Your task to perform on an android device: change keyboard looks Image 0: 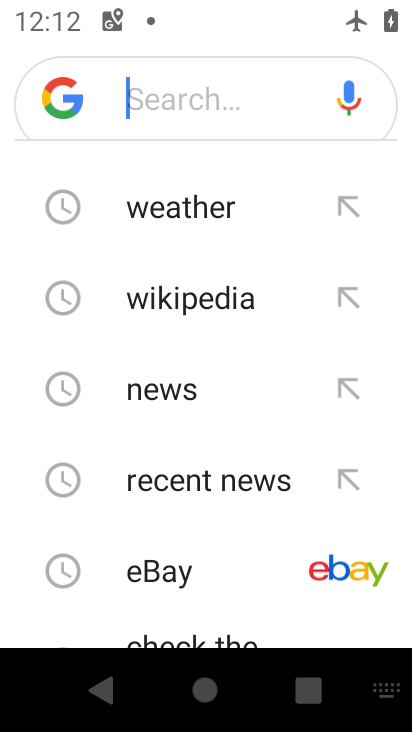
Step 0: press home button
Your task to perform on an android device: change keyboard looks Image 1: 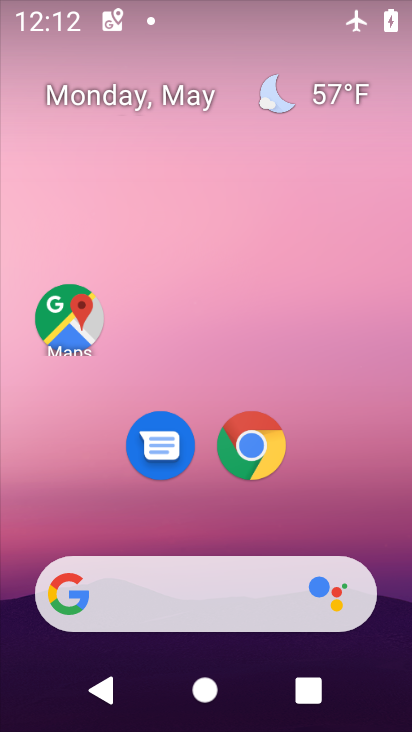
Step 1: drag from (305, 430) to (276, 98)
Your task to perform on an android device: change keyboard looks Image 2: 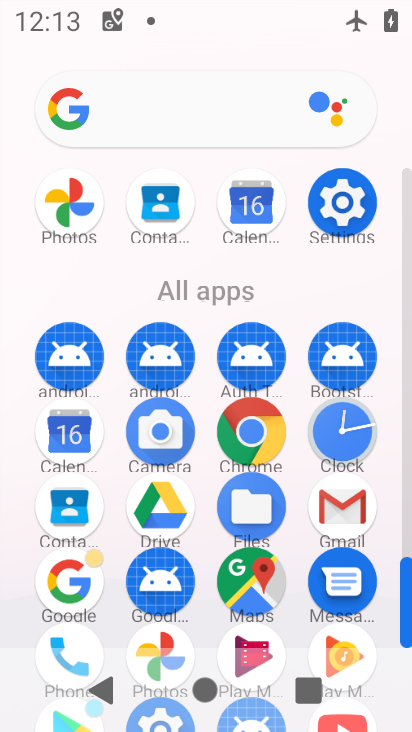
Step 2: click (328, 208)
Your task to perform on an android device: change keyboard looks Image 3: 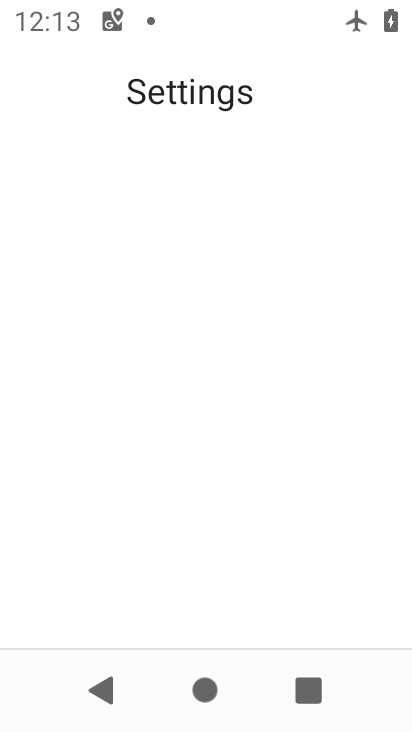
Step 3: click (328, 208)
Your task to perform on an android device: change keyboard looks Image 4: 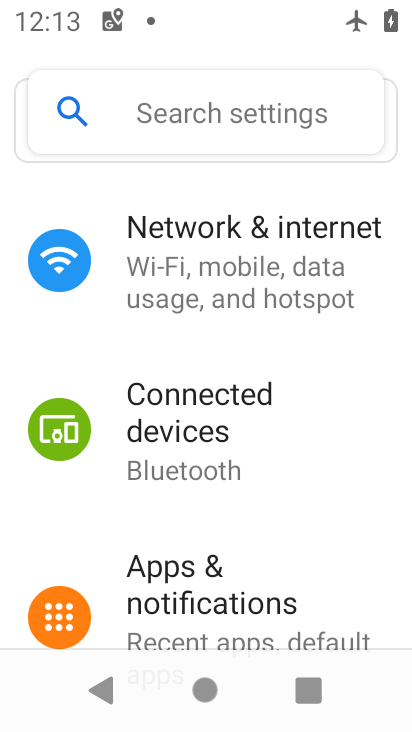
Step 4: drag from (241, 335) to (211, 220)
Your task to perform on an android device: change keyboard looks Image 5: 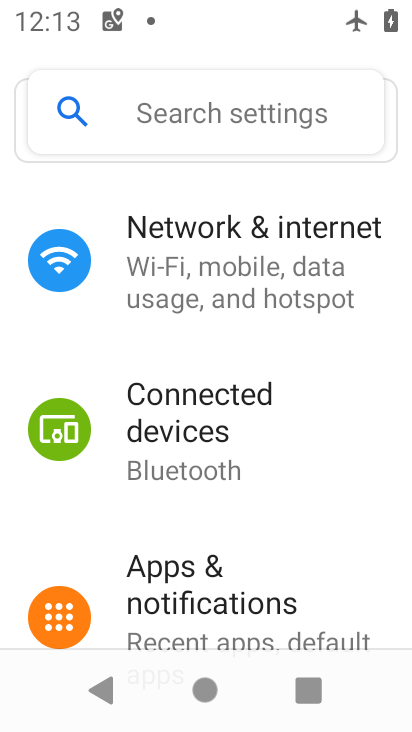
Step 5: drag from (266, 496) to (218, 175)
Your task to perform on an android device: change keyboard looks Image 6: 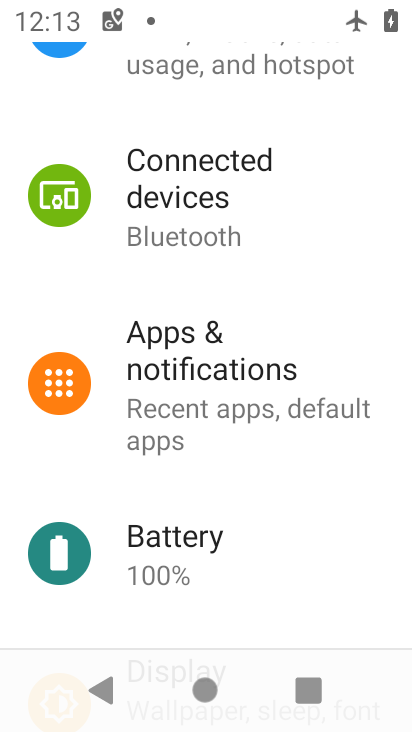
Step 6: drag from (278, 556) to (245, 62)
Your task to perform on an android device: change keyboard looks Image 7: 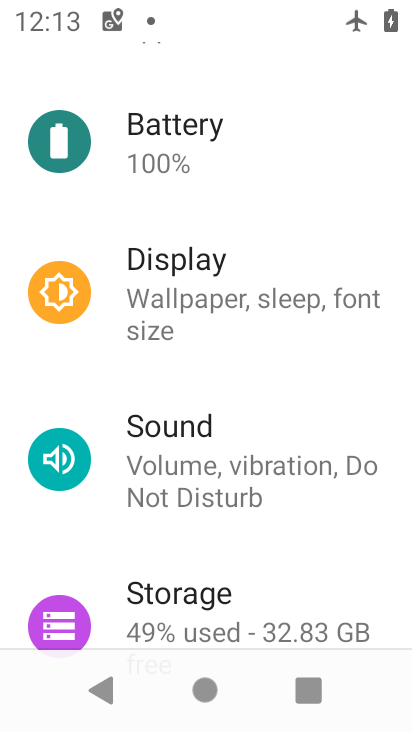
Step 7: drag from (278, 584) to (197, 3)
Your task to perform on an android device: change keyboard looks Image 8: 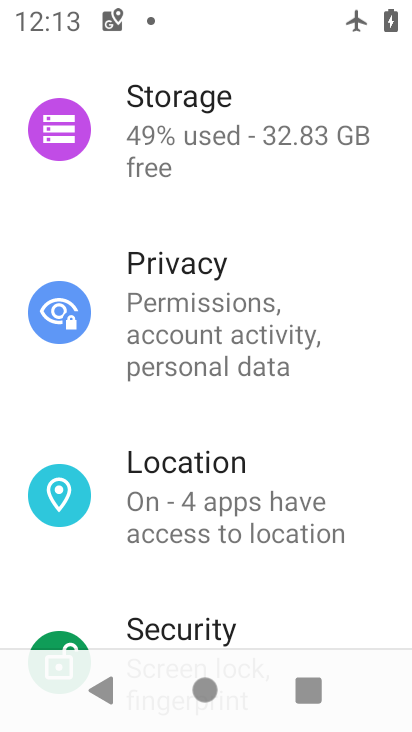
Step 8: click (251, 25)
Your task to perform on an android device: change keyboard looks Image 9: 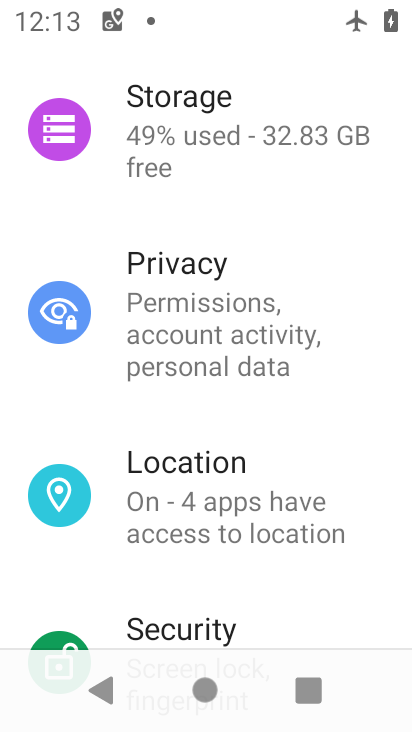
Step 9: drag from (302, 575) to (294, 158)
Your task to perform on an android device: change keyboard looks Image 10: 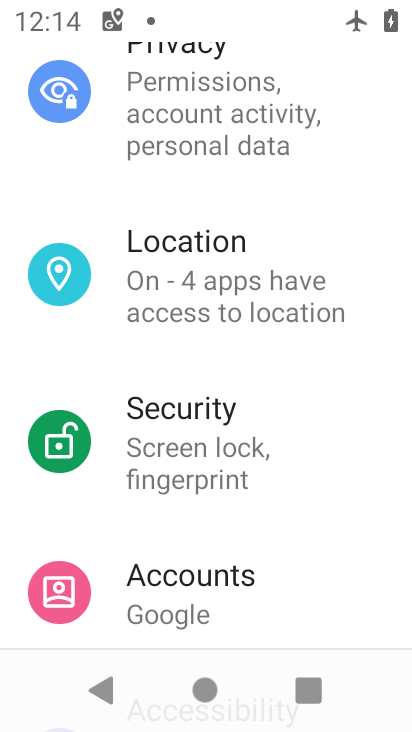
Step 10: drag from (288, 523) to (260, 115)
Your task to perform on an android device: change keyboard looks Image 11: 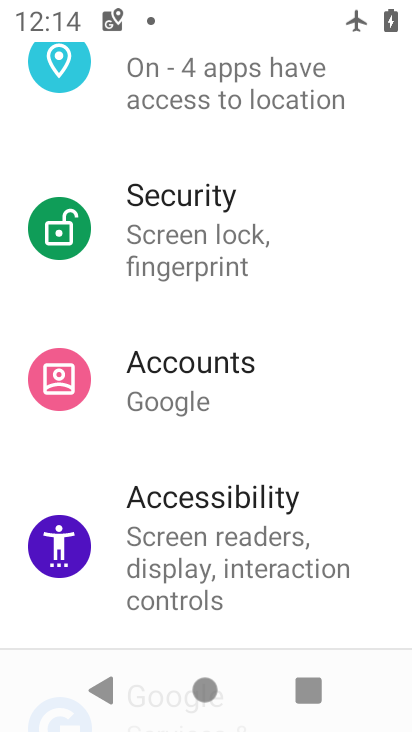
Step 11: drag from (292, 440) to (280, 172)
Your task to perform on an android device: change keyboard looks Image 12: 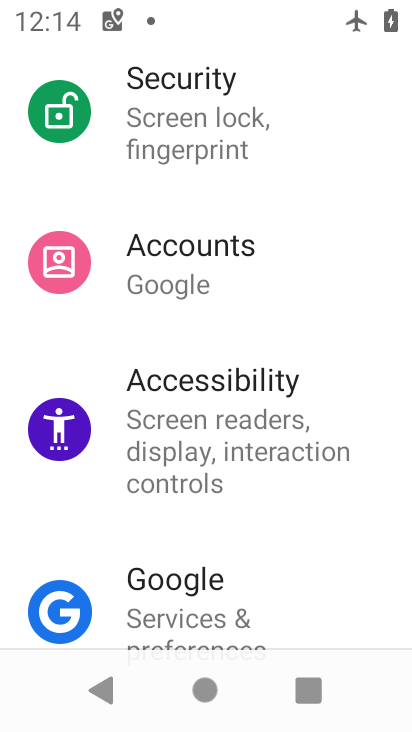
Step 12: drag from (299, 540) to (316, 151)
Your task to perform on an android device: change keyboard looks Image 13: 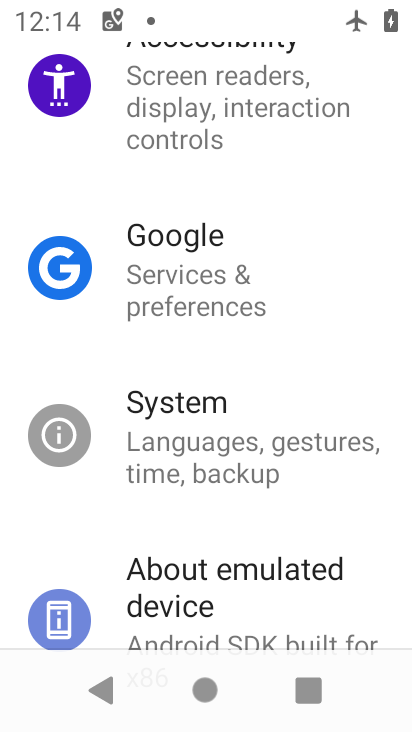
Step 13: click (255, 450)
Your task to perform on an android device: change keyboard looks Image 14: 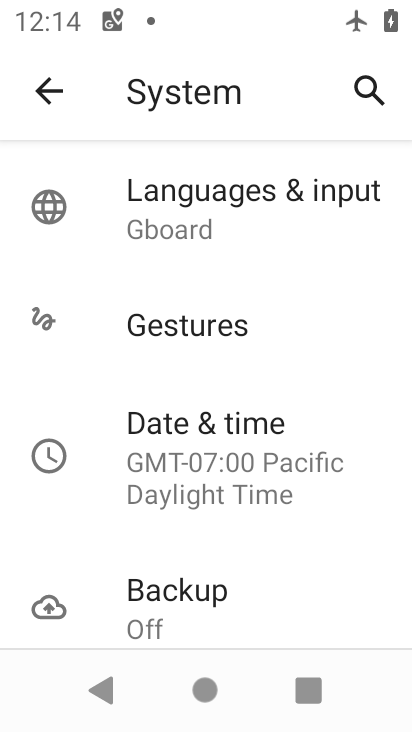
Step 14: drag from (294, 559) to (299, 194)
Your task to perform on an android device: change keyboard looks Image 15: 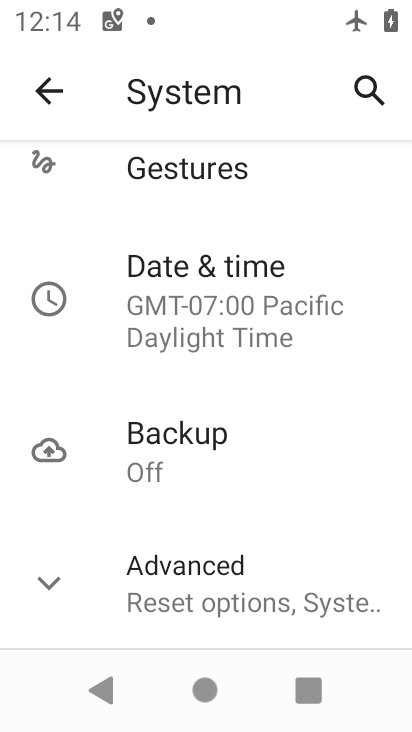
Step 15: drag from (299, 186) to (260, 508)
Your task to perform on an android device: change keyboard looks Image 16: 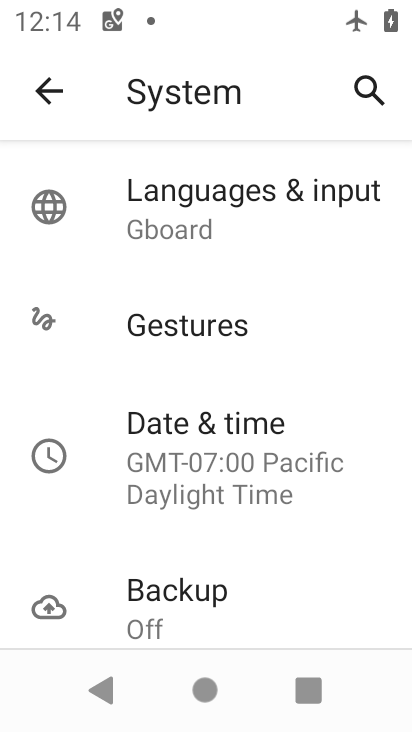
Step 16: click (206, 201)
Your task to perform on an android device: change keyboard looks Image 17: 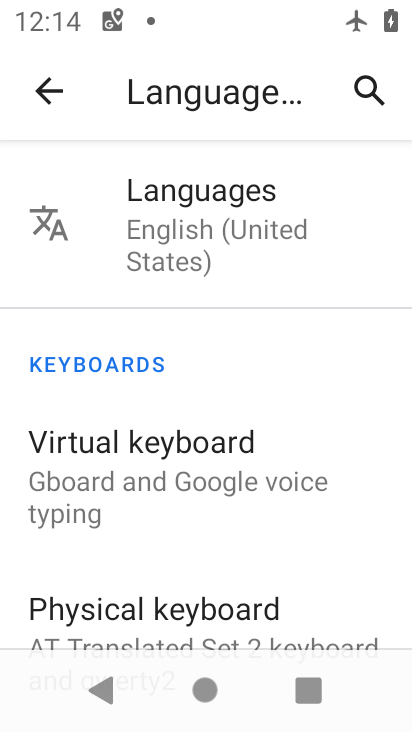
Step 17: drag from (258, 488) to (238, 220)
Your task to perform on an android device: change keyboard looks Image 18: 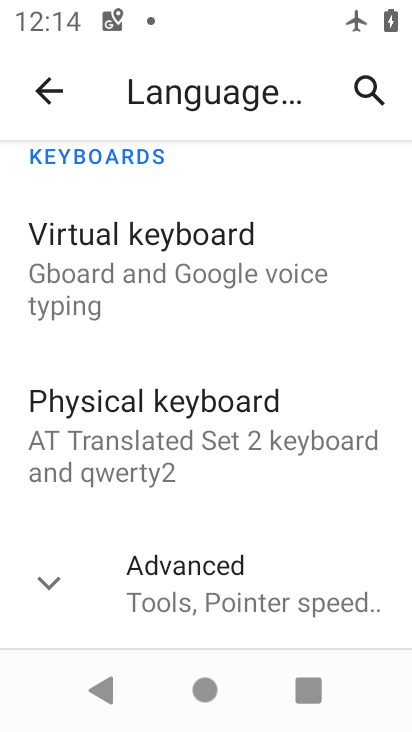
Step 18: drag from (274, 450) to (272, 154)
Your task to perform on an android device: change keyboard looks Image 19: 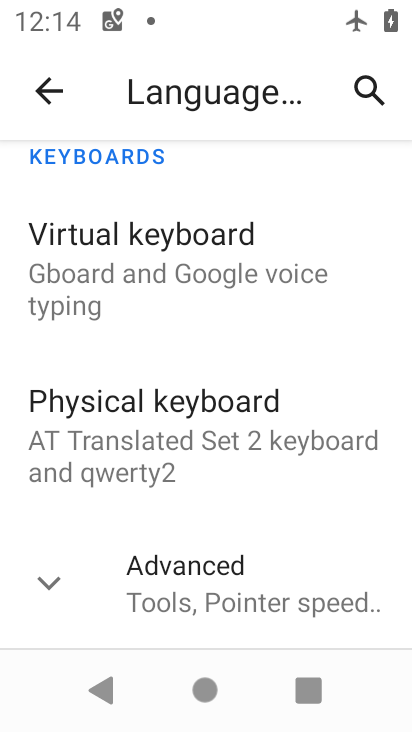
Step 19: click (146, 264)
Your task to perform on an android device: change keyboard looks Image 20: 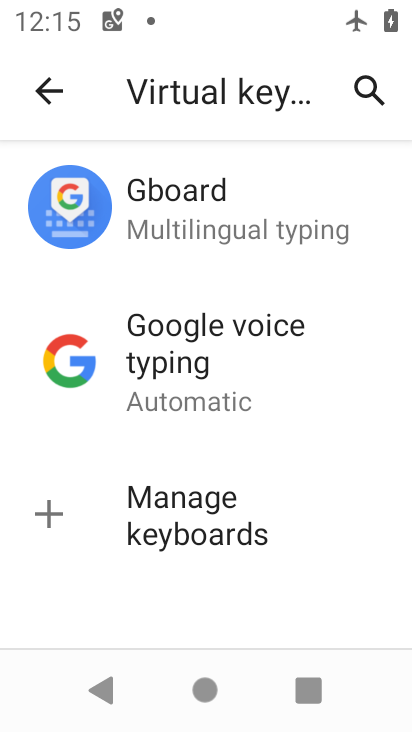
Step 20: click (146, 205)
Your task to perform on an android device: change keyboard looks Image 21: 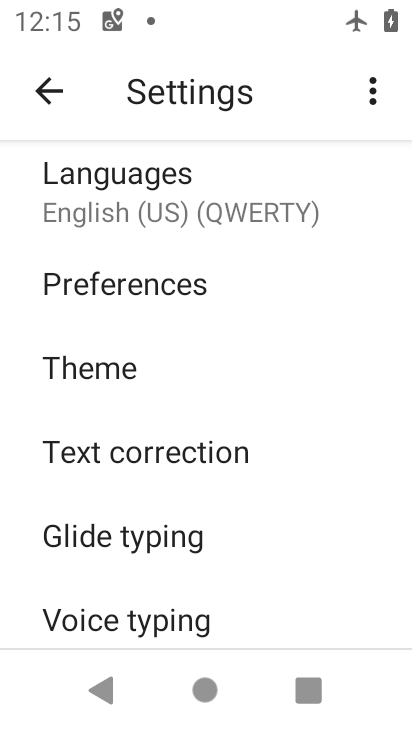
Step 21: click (167, 361)
Your task to perform on an android device: change keyboard looks Image 22: 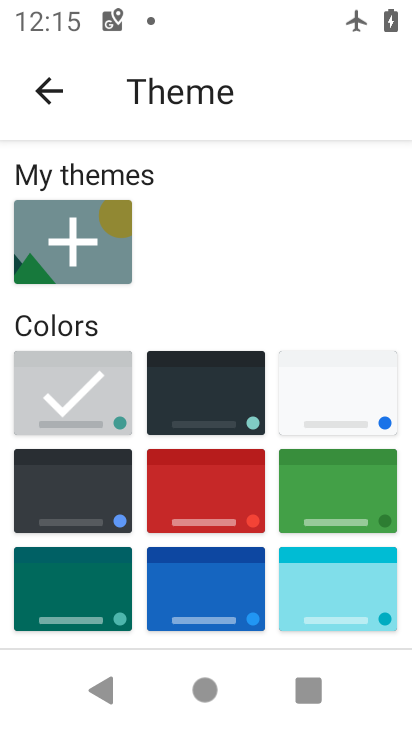
Step 22: click (210, 377)
Your task to perform on an android device: change keyboard looks Image 23: 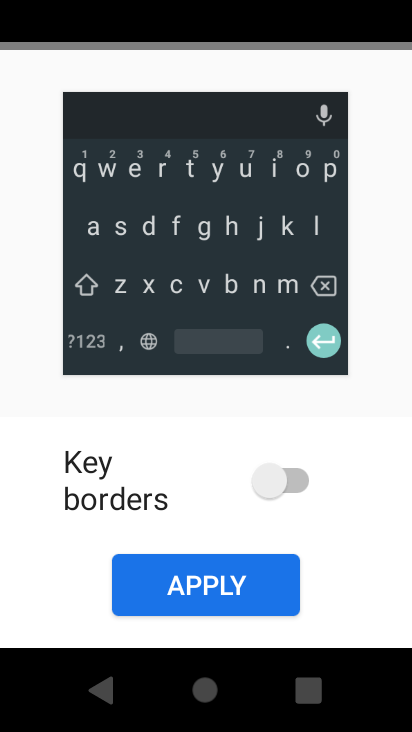
Step 23: click (261, 480)
Your task to perform on an android device: change keyboard looks Image 24: 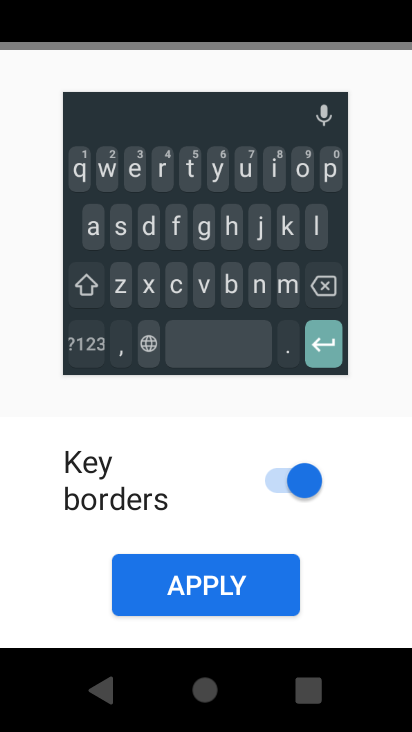
Step 24: click (232, 580)
Your task to perform on an android device: change keyboard looks Image 25: 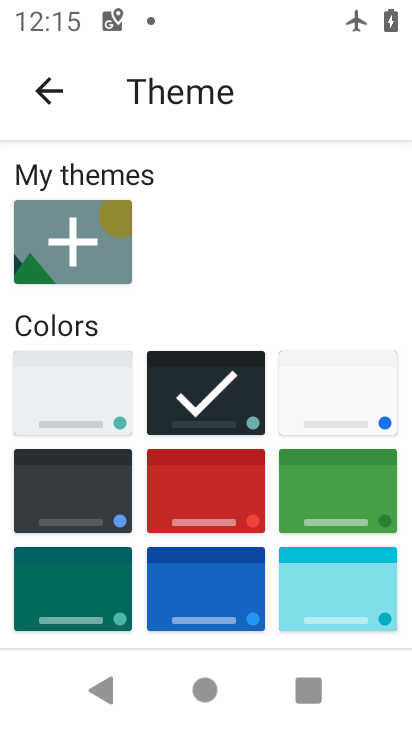
Step 25: task complete